Your task to perform on an android device: open app "Fetch Rewards" Image 0: 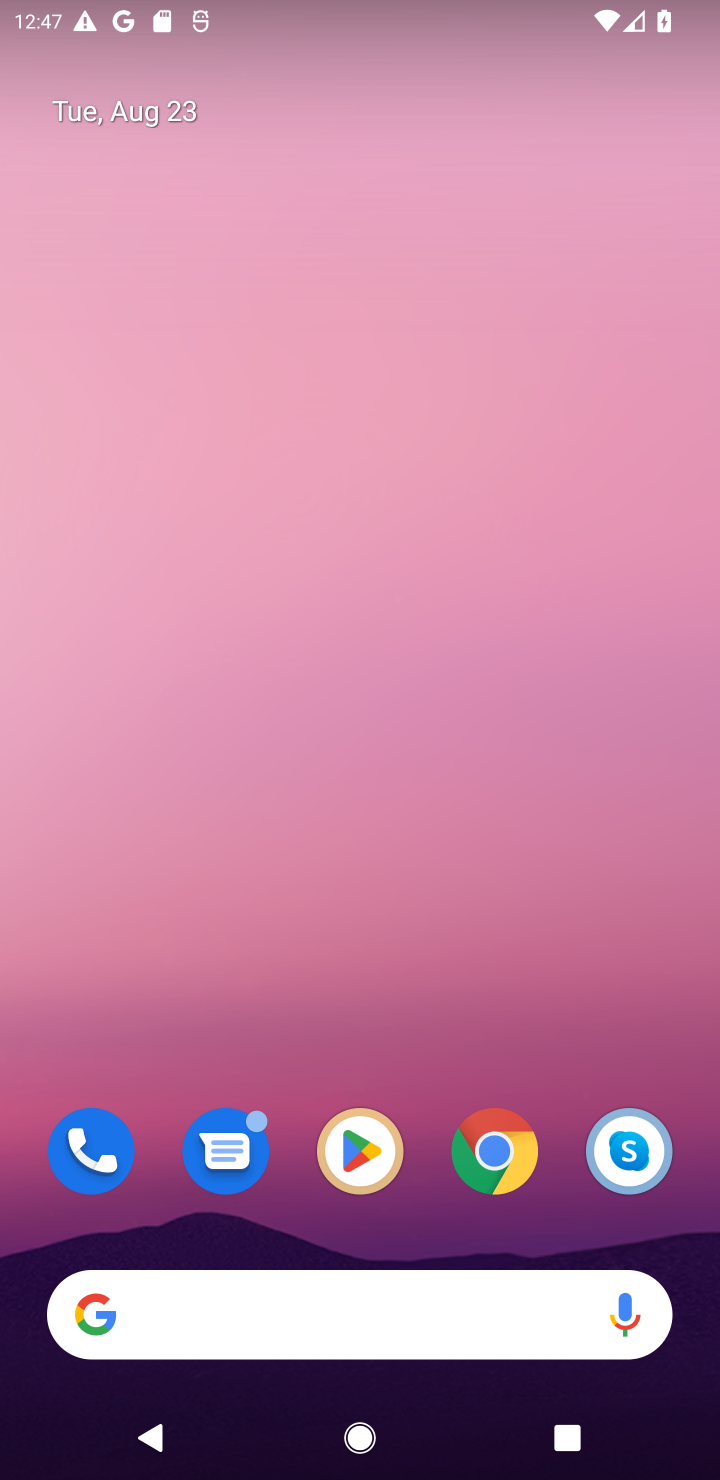
Step 0: click (343, 1134)
Your task to perform on an android device: open app "Fetch Rewards" Image 1: 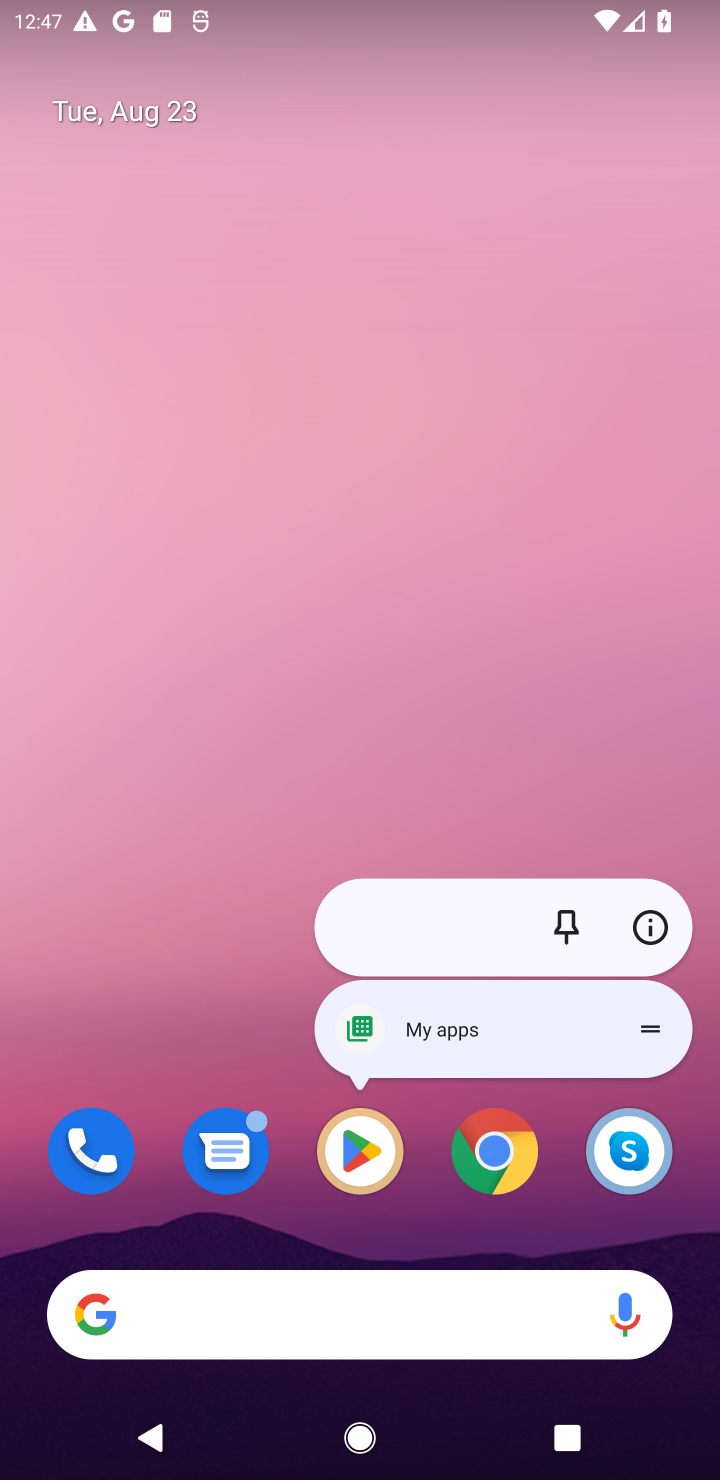
Step 1: click (364, 1138)
Your task to perform on an android device: open app "Fetch Rewards" Image 2: 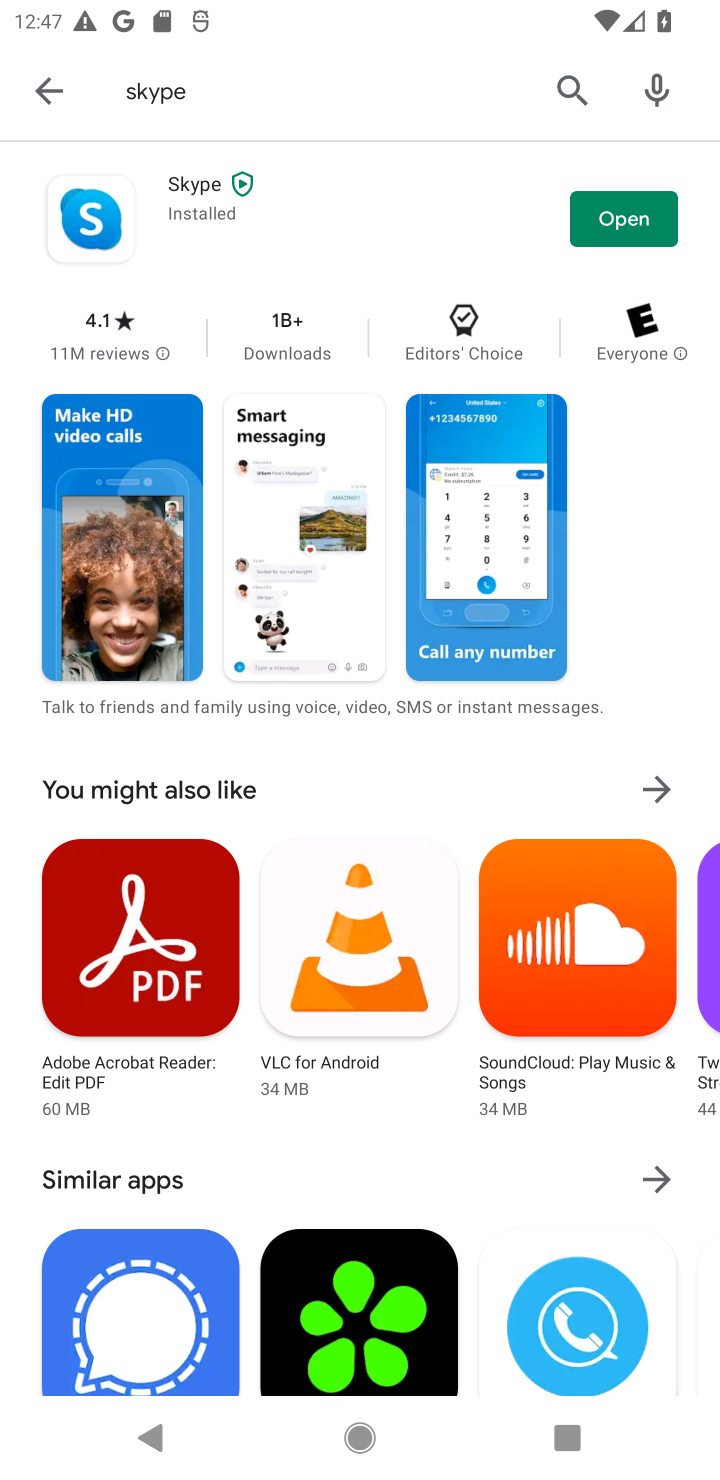
Step 2: click (583, 87)
Your task to perform on an android device: open app "Fetch Rewards" Image 3: 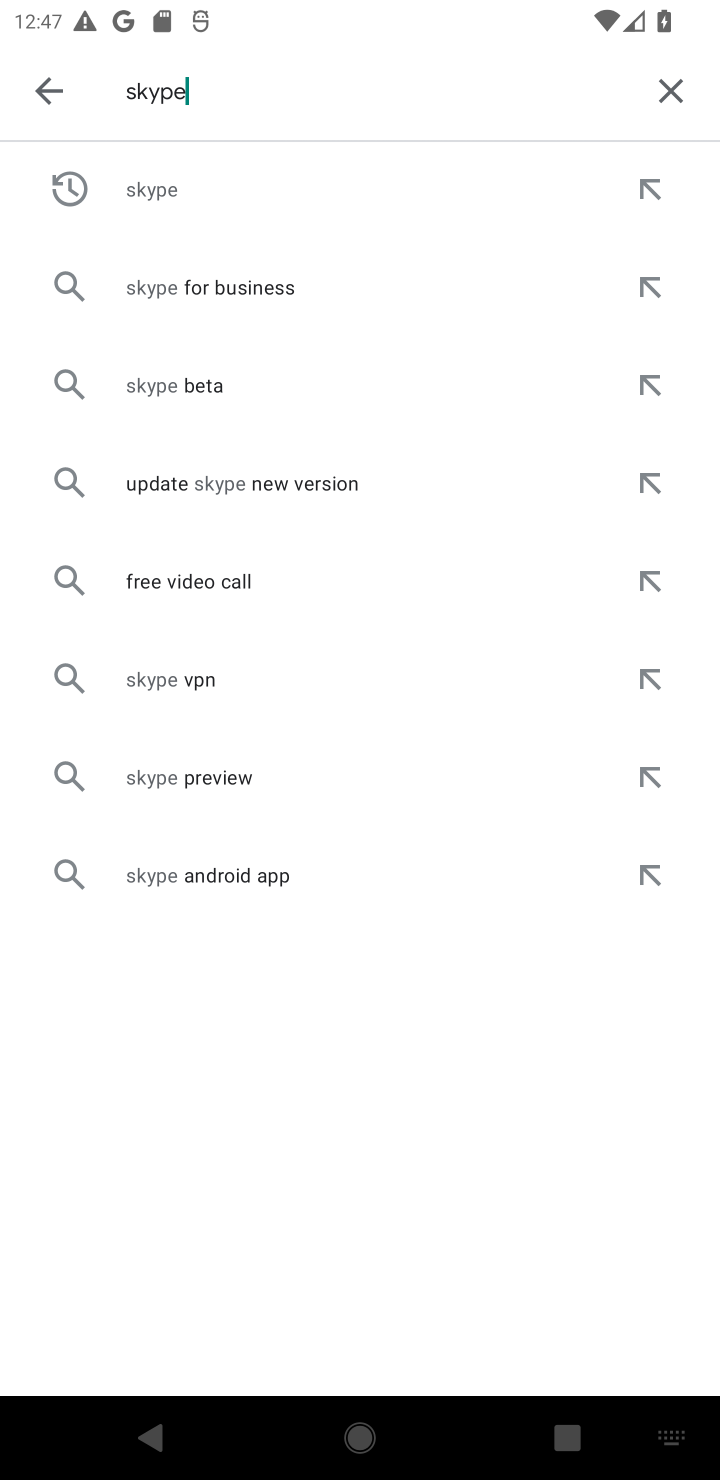
Step 3: click (665, 94)
Your task to perform on an android device: open app "Fetch Rewards" Image 4: 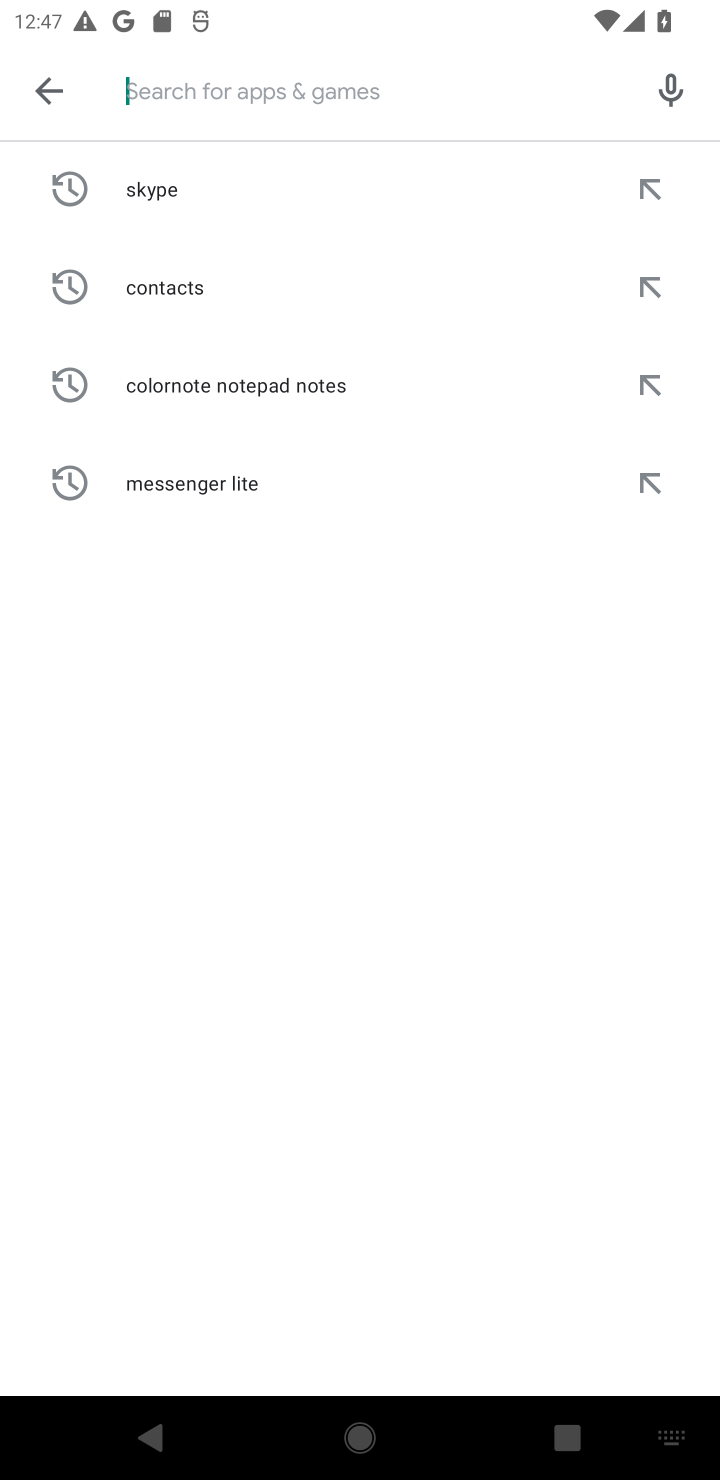
Step 4: type "Fetch Rewards"
Your task to perform on an android device: open app "Fetch Rewards" Image 5: 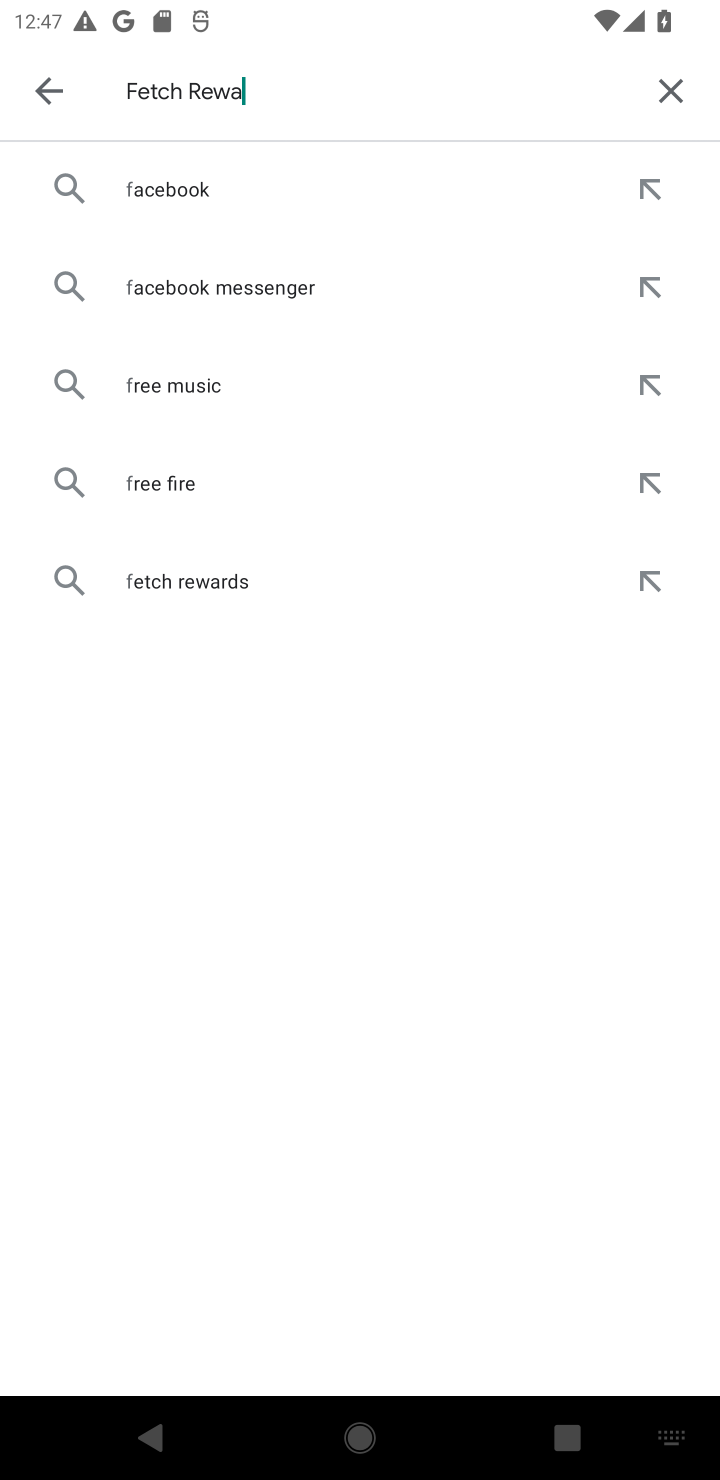
Step 5: type ""
Your task to perform on an android device: open app "Fetch Rewards" Image 6: 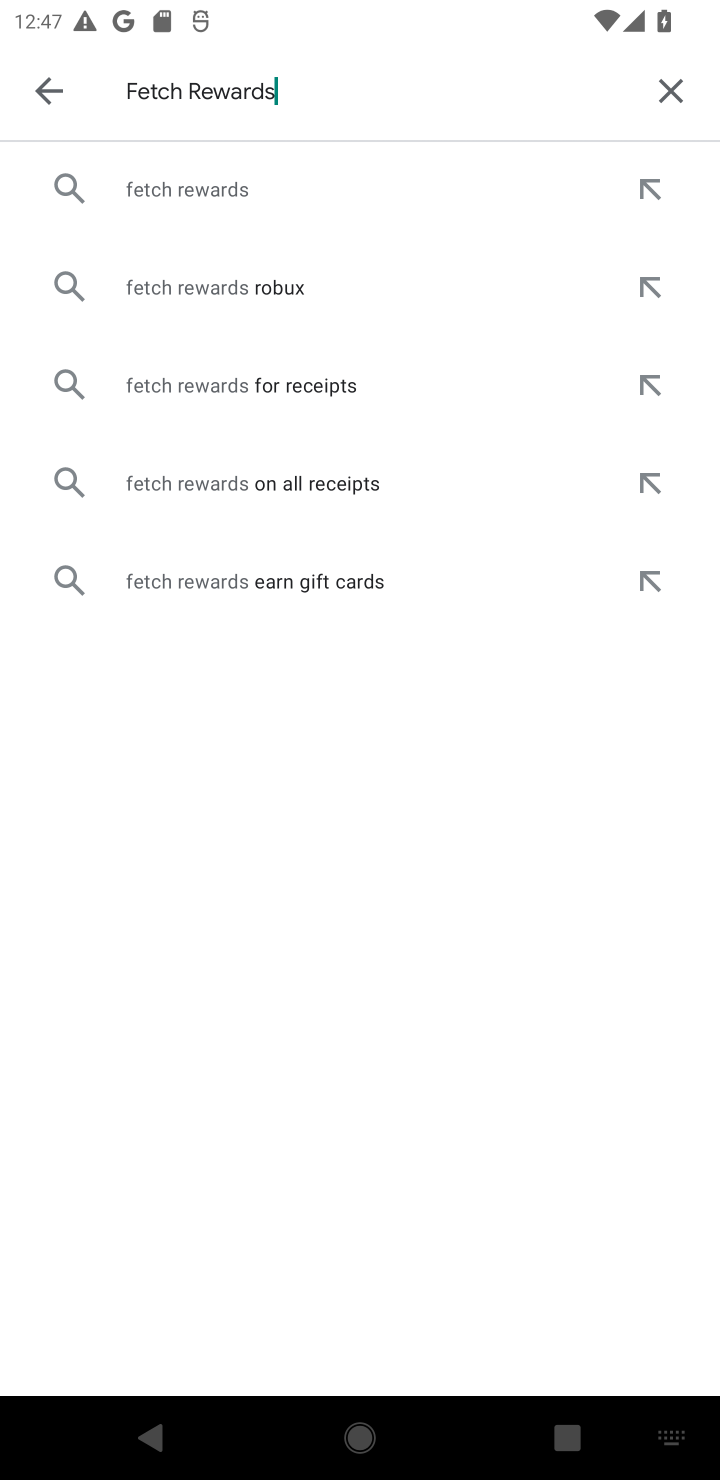
Step 6: click (303, 181)
Your task to perform on an android device: open app "Fetch Rewards" Image 7: 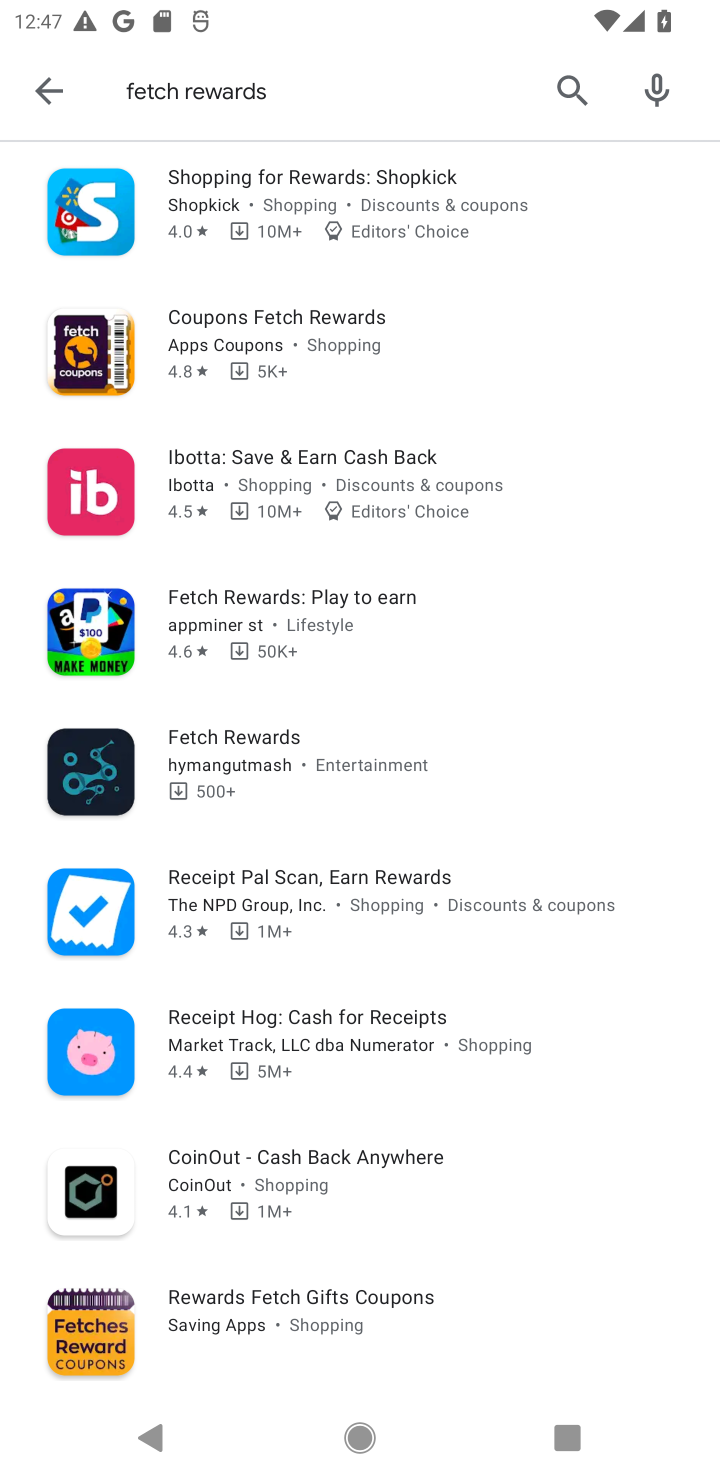
Step 7: task complete